Your task to perform on an android device: What's on my calendar tomorrow? Image 0: 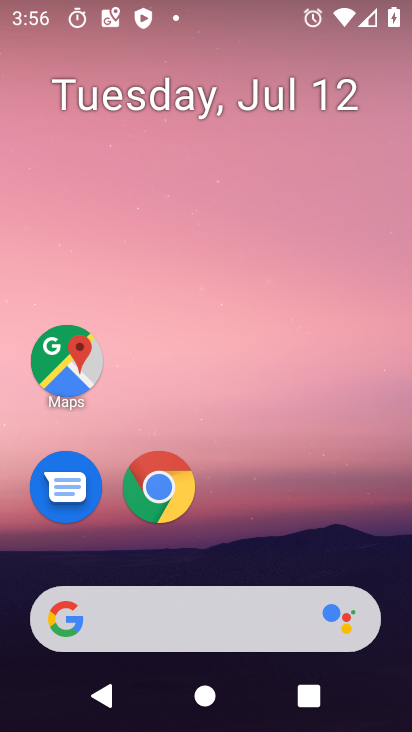
Step 0: press home button
Your task to perform on an android device: What's on my calendar tomorrow? Image 1: 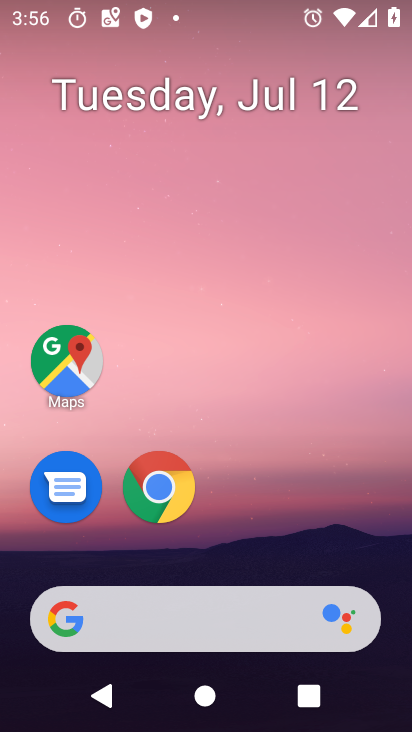
Step 1: drag from (148, 583) to (210, 232)
Your task to perform on an android device: What's on my calendar tomorrow? Image 2: 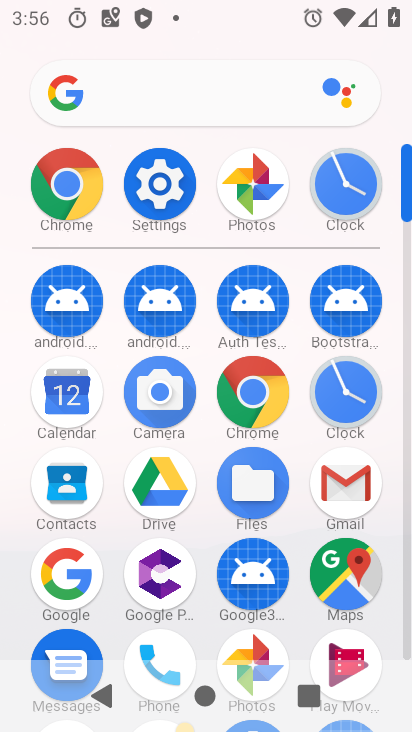
Step 2: click (77, 402)
Your task to perform on an android device: What's on my calendar tomorrow? Image 3: 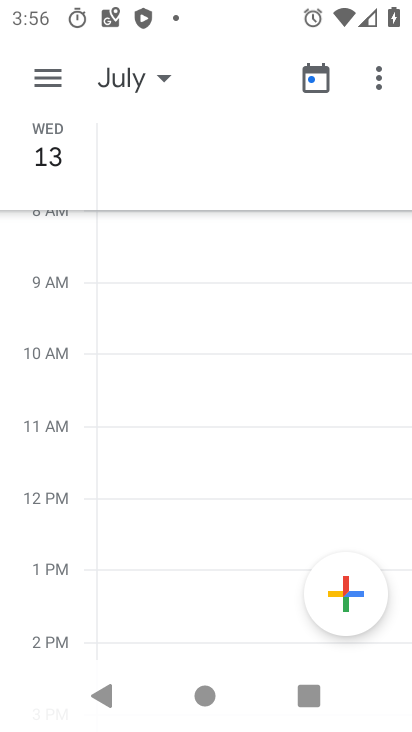
Step 3: click (150, 73)
Your task to perform on an android device: What's on my calendar tomorrow? Image 4: 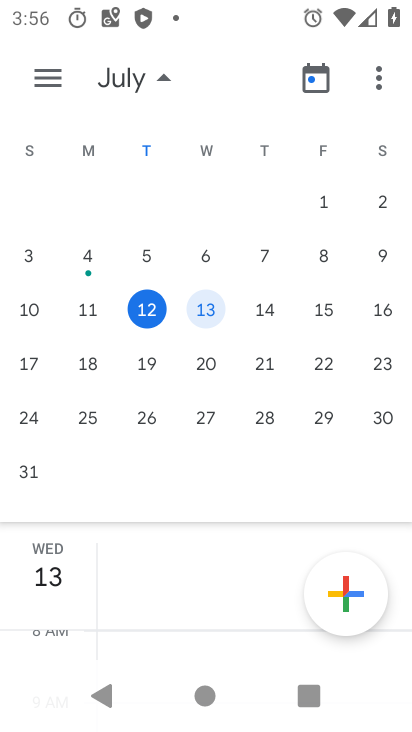
Step 4: click (204, 308)
Your task to perform on an android device: What's on my calendar tomorrow? Image 5: 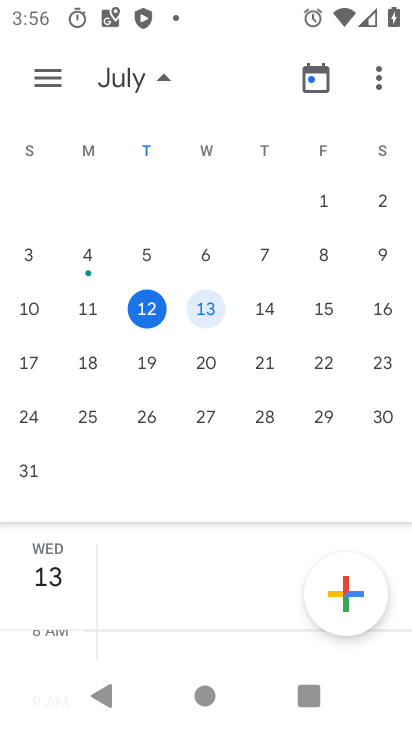
Step 5: task complete